Your task to perform on an android device: turn off javascript in the chrome app Image 0: 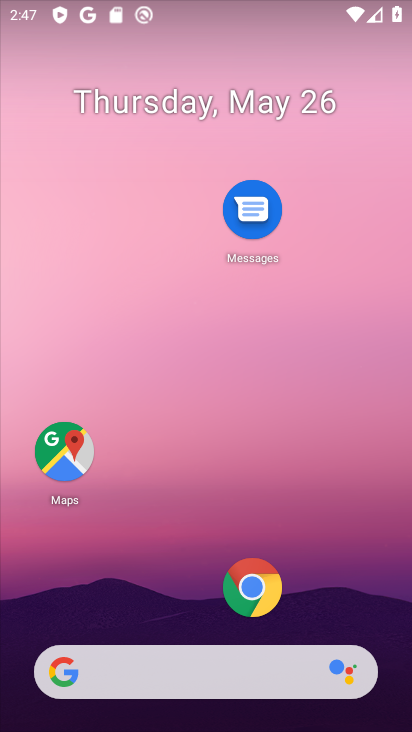
Step 0: drag from (174, 622) to (175, 90)
Your task to perform on an android device: turn off javascript in the chrome app Image 1: 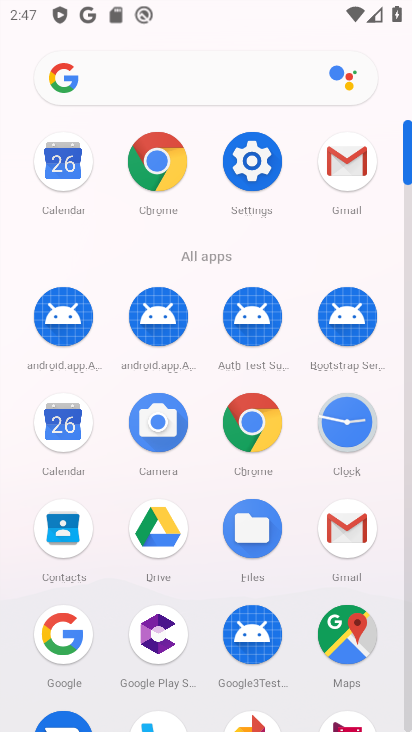
Step 1: click (247, 428)
Your task to perform on an android device: turn off javascript in the chrome app Image 2: 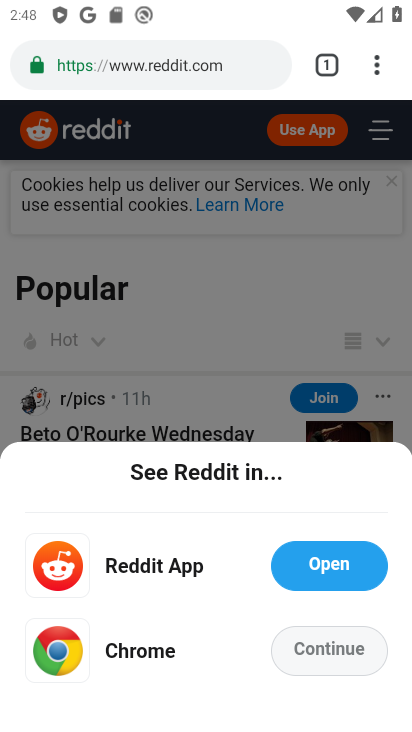
Step 2: click (380, 61)
Your task to perform on an android device: turn off javascript in the chrome app Image 3: 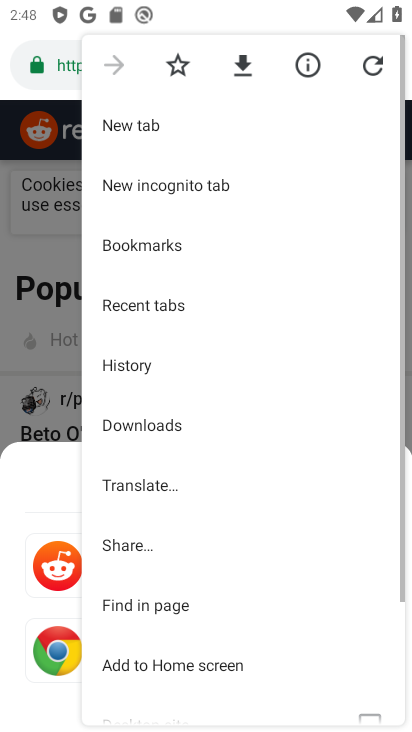
Step 3: drag from (185, 577) to (236, 315)
Your task to perform on an android device: turn off javascript in the chrome app Image 4: 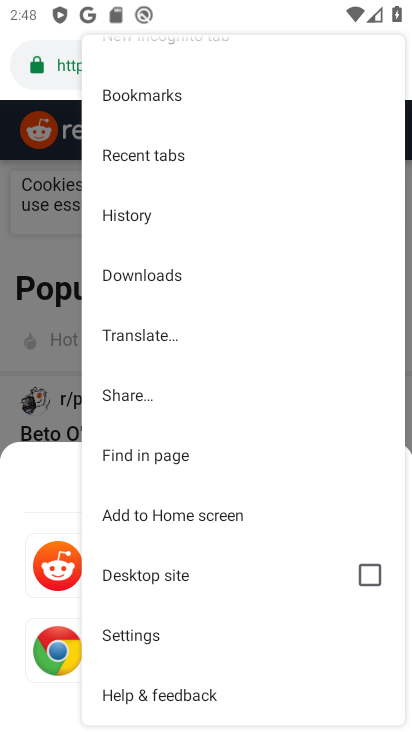
Step 4: click (128, 639)
Your task to perform on an android device: turn off javascript in the chrome app Image 5: 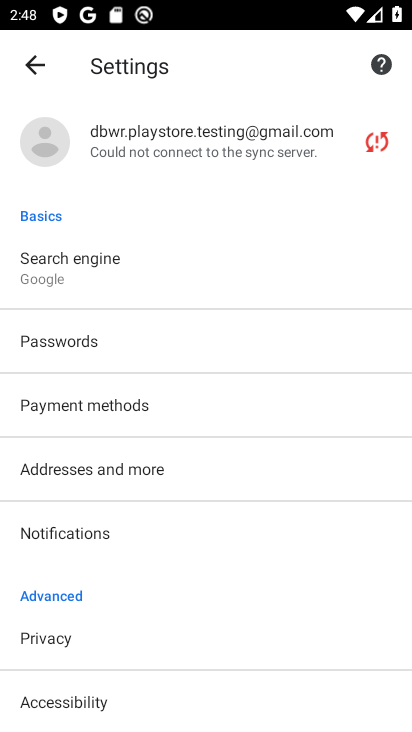
Step 5: drag from (114, 632) to (108, 442)
Your task to perform on an android device: turn off javascript in the chrome app Image 6: 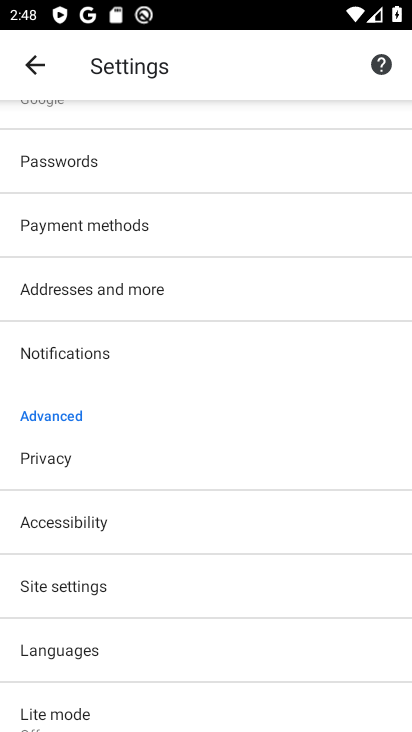
Step 6: click (75, 576)
Your task to perform on an android device: turn off javascript in the chrome app Image 7: 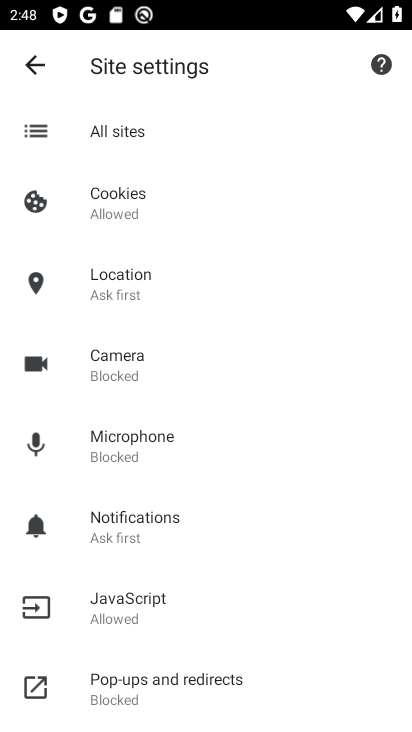
Step 7: drag from (151, 569) to (190, 405)
Your task to perform on an android device: turn off javascript in the chrome app Image 8: 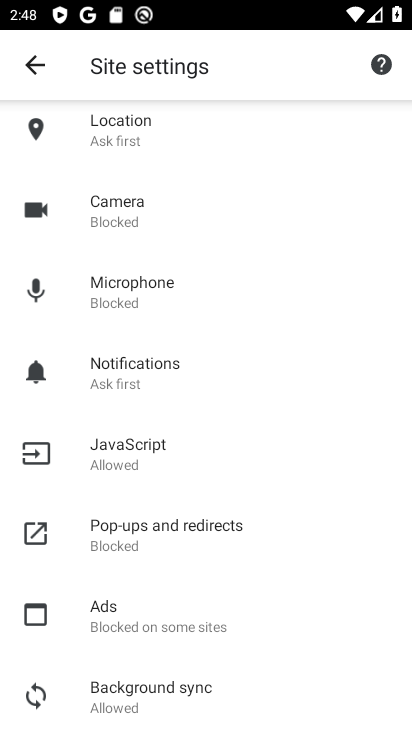
Step 8: click (138, 441)
Your task to perform on an android device: turn off javascript in the chrome app Image 9: 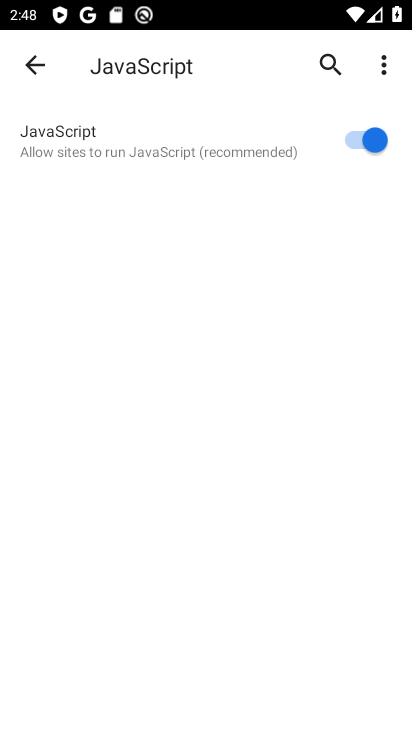
Step 9: click (322, 151)
Your task to perform on an android device: turn off javascript in the chrome app Image 10: 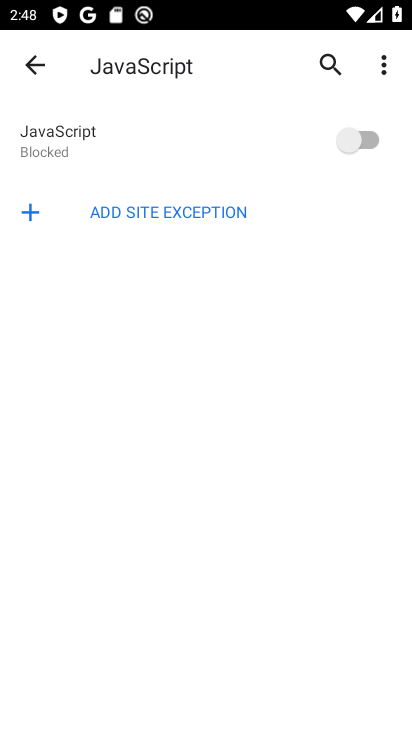
Step 10: task complete